Your task to perform on an android device: set an alarm Image 0: 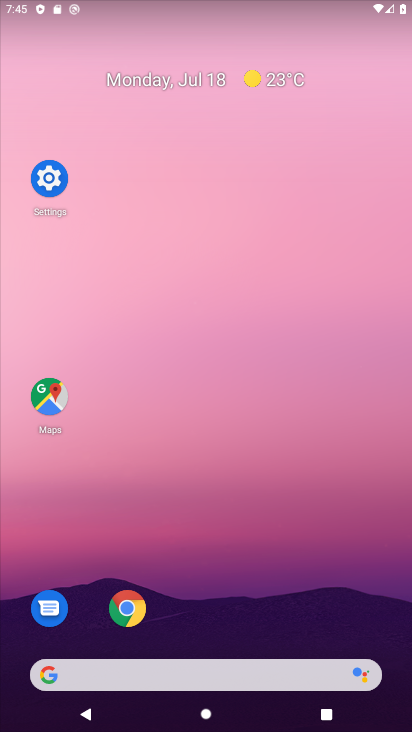
Step 0: drag from (240, 598) to (263, 176)
Your task to perform on an android device: set an alarm Image 1: 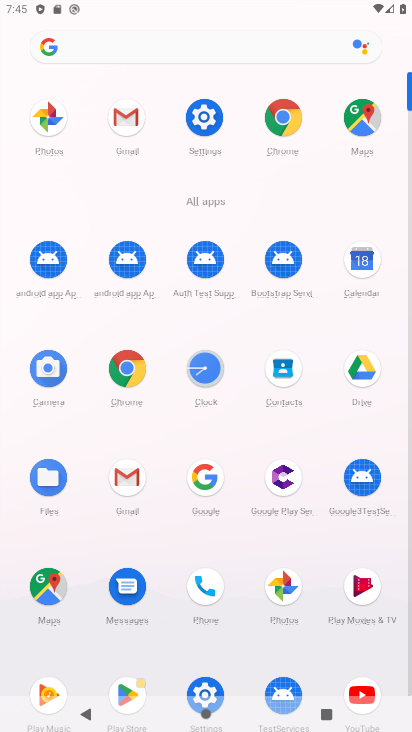
Step 1: click (217, 361)
Your task to perform on an android device: set an alarm Image 2: 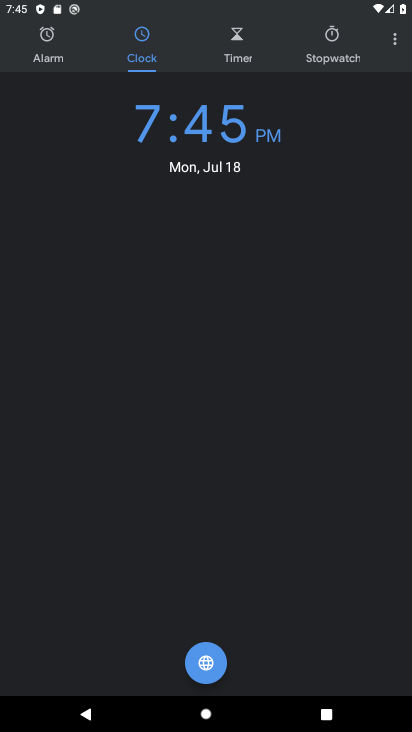
Step 2: click (50, 49)
Your task to perform on an android device: set an alarm Image 3: 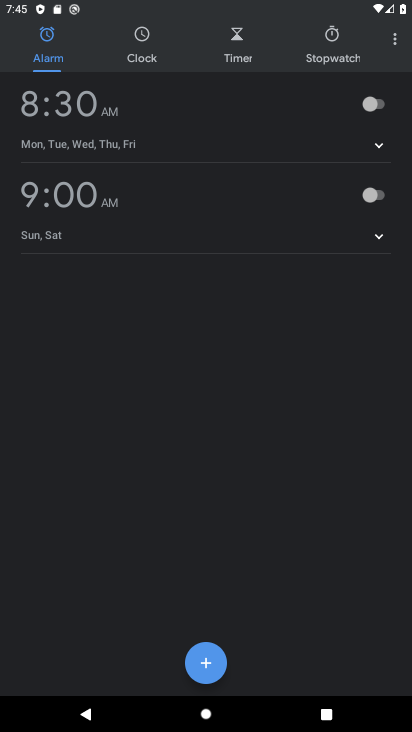
Step 3: click (364, 99)
Your task to perform on an android device: set an alarm Image 4: 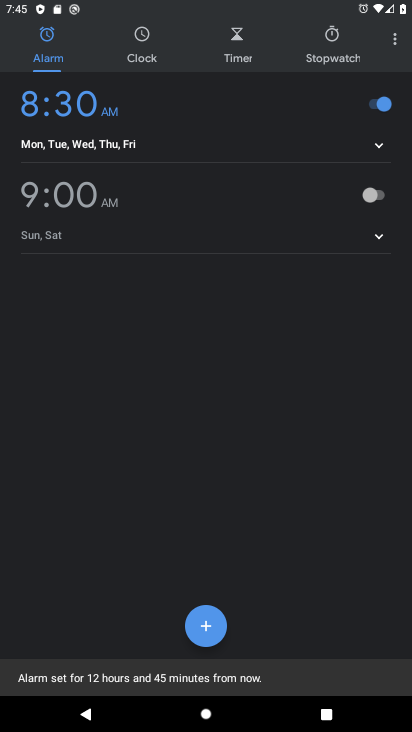
Step 4: task complete